Your task to perform on an android device: Is it going to rain tomorrow? Image 0: 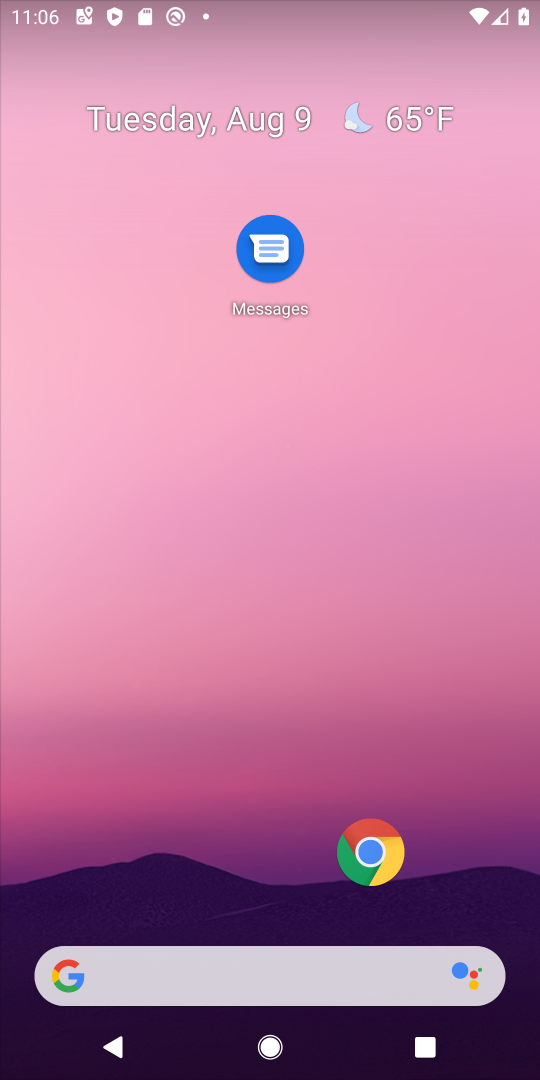
Step 0: click (426, 108)
Your task to perform on an android device: Is it going to rain tomorrow? Image 1: 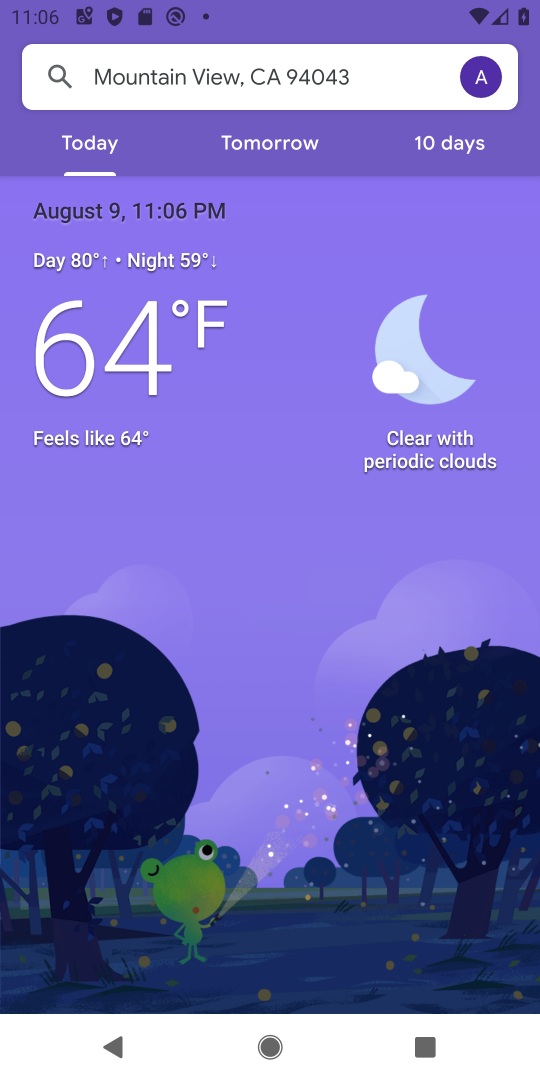
Step 1: click (244, 159)
Your task to perform on an android device: Is it going to rain tomorrow? Image 2: 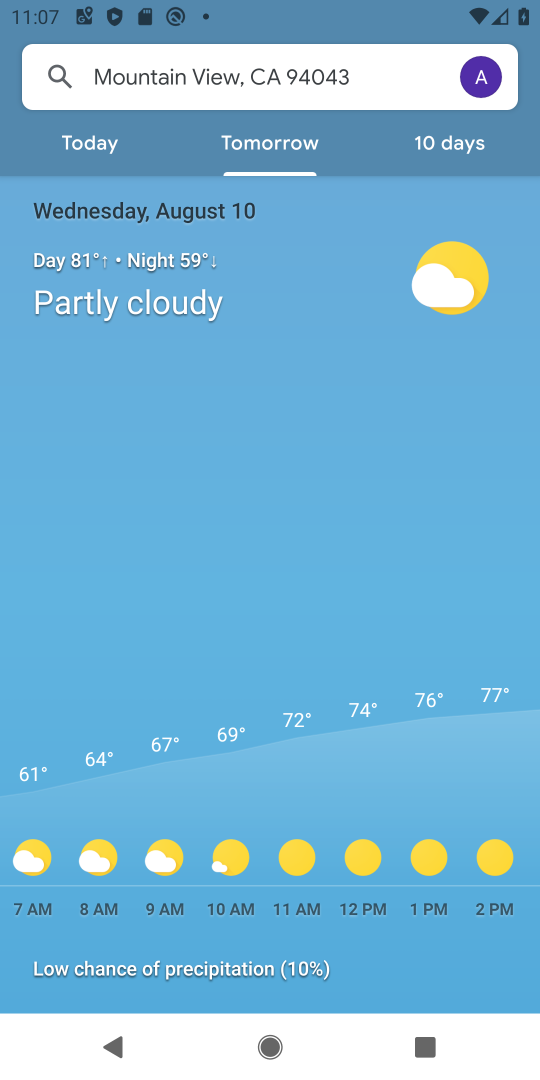
Step 2: task complete